Your task to perform on an android device: toggle airplane mode Image 0: 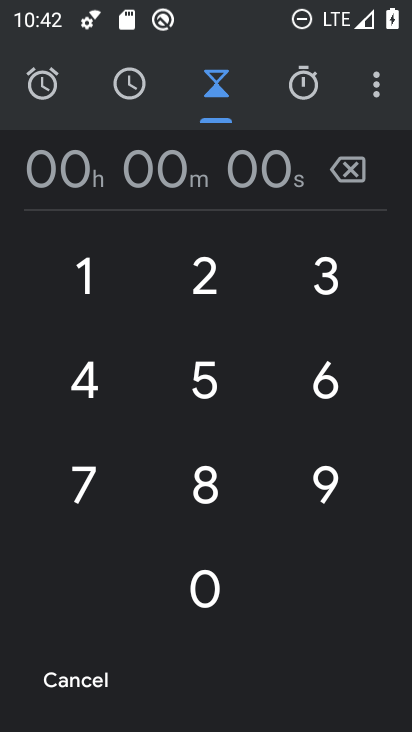
Step 0: press home button
Your task to perform on an android device: toggle airplane mode Image 1: 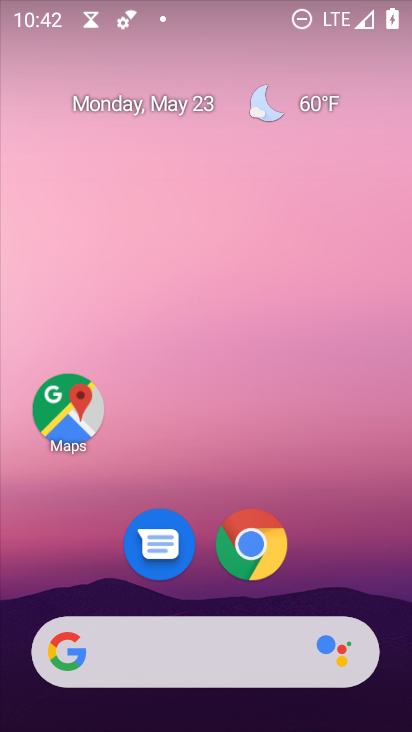
Step 1: drag from (332, 535) to (123, 109)
Your task to perform on an android device: toggle airplane mode Image 2: 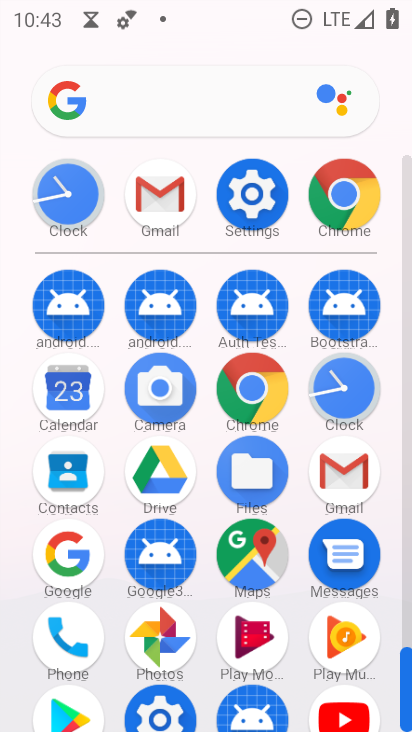
Step 2: click (261, 205)
Your task to perform on an android device: toggle airplane mode Image 3: 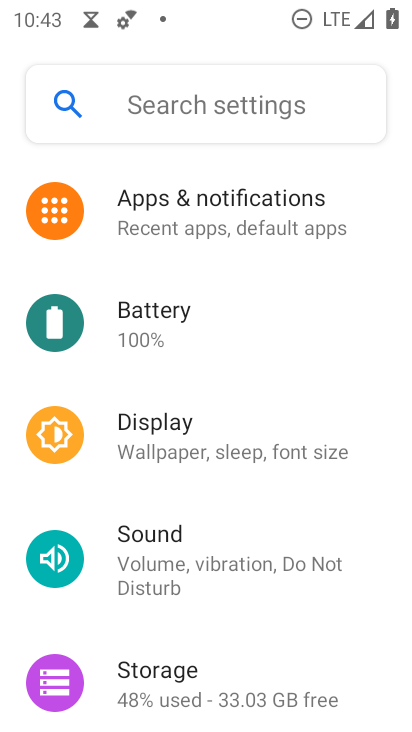
Step 3: drag from (261, 205) to (241, 542)
Your task to perform on an android device: toggle airplane mode Image 4: 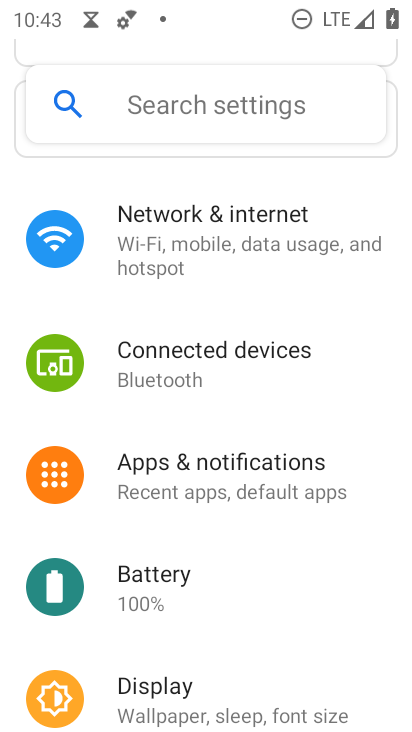
Step 4: click (217, 233)
Your task to perform on an android device: toggle airplane mode Image 5: 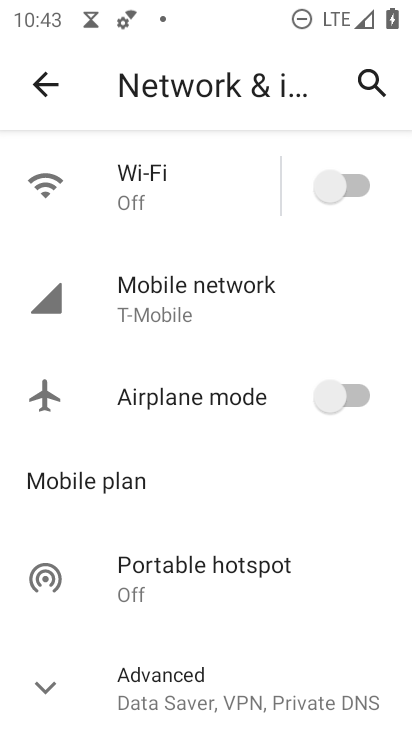
Step 5: drag from (145, 684) to (130, 272)
Your task to perform on an android device: toggle airplane mode Image 6: 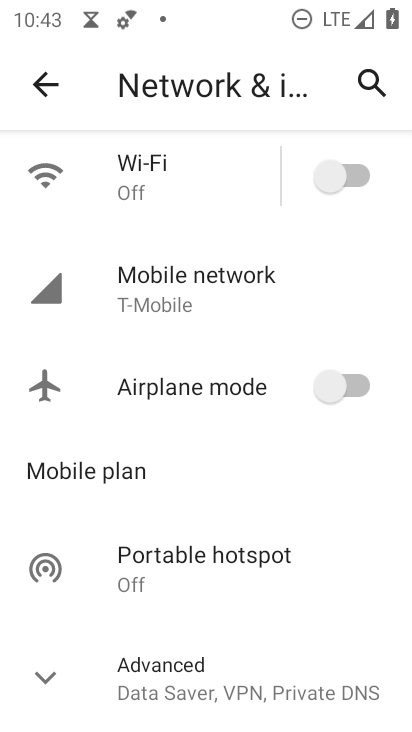
Step 6: click (342, 389)
Your task to perform on an android device: toggle airplane mode Image 7: 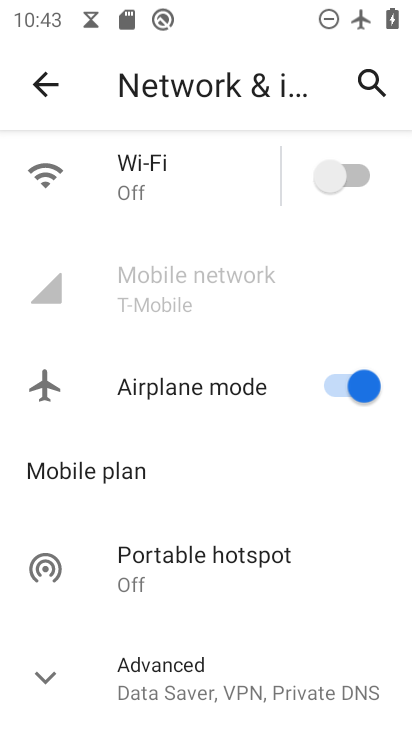
Step 7: task complete